Your task to perform on an android device: Open display settings Image 0: 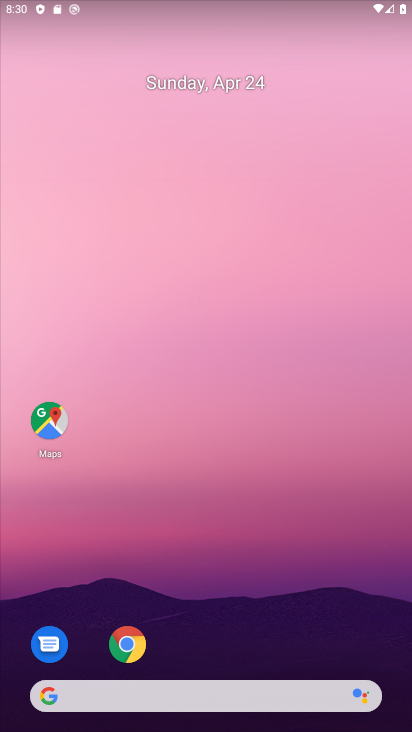
Step 0: click (372, 43)
Your task to perform on an android device: Open display settings Image 1: 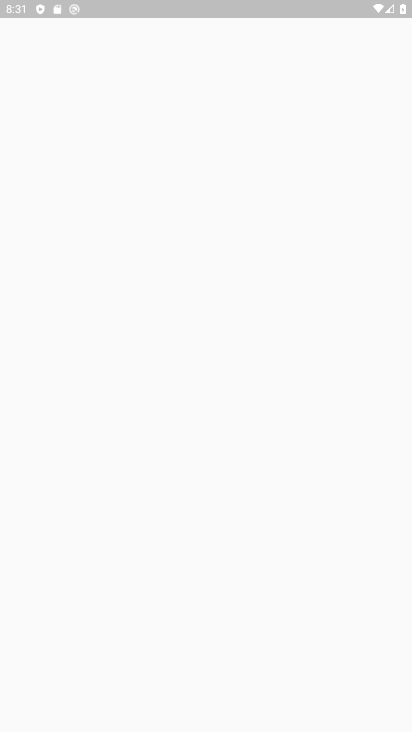
Step 1: press home button
Your task to perform on an android device: Open display settings Image 2: 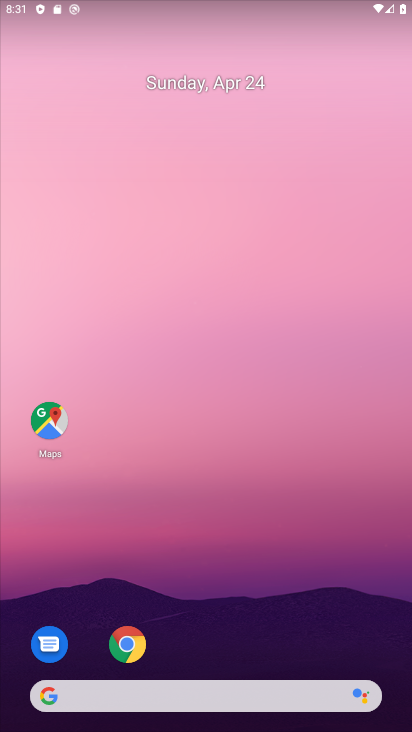
Step 2: drag from (221, 653) to (398, 12)
Your task to perform on an android device: Open display settings Image 3: 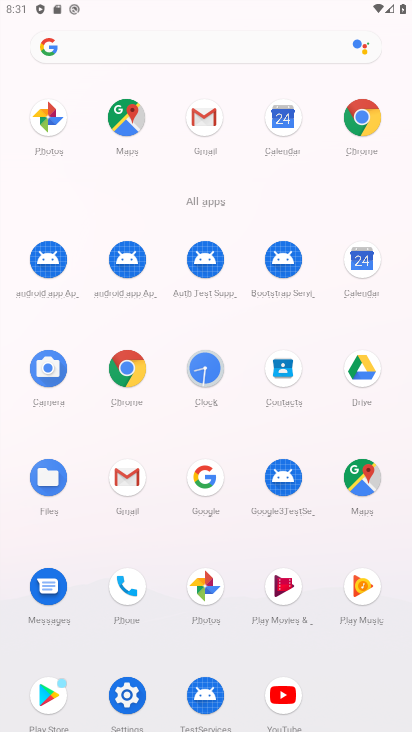
Step 3: drag from (189, 625) to (249, 360)
Your task to perform on an android device: Open display settings Image 4: 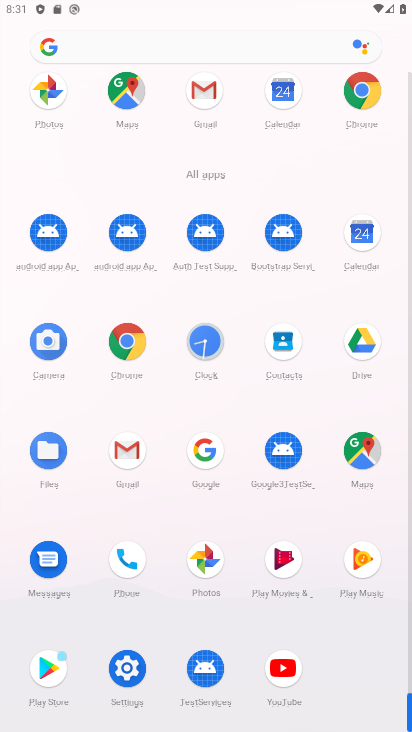
Step 4: click (116, 661)
Your task to perform on an android device: Open display settings Image 5: 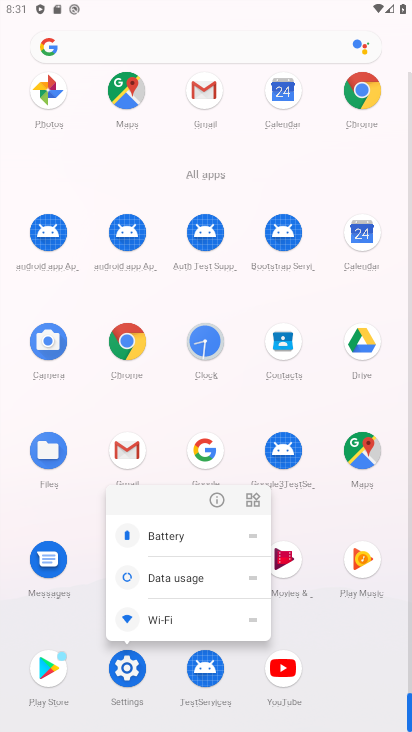
Step 5: click (128, 666)
Your task to perform on an android device: Open display settings Image 6: 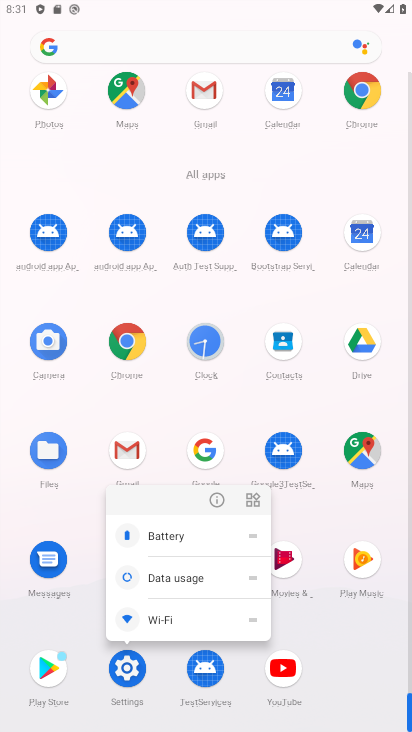
Step 6: click (131, 675)
Your task to perform on an android device: Open display settings Image 7: 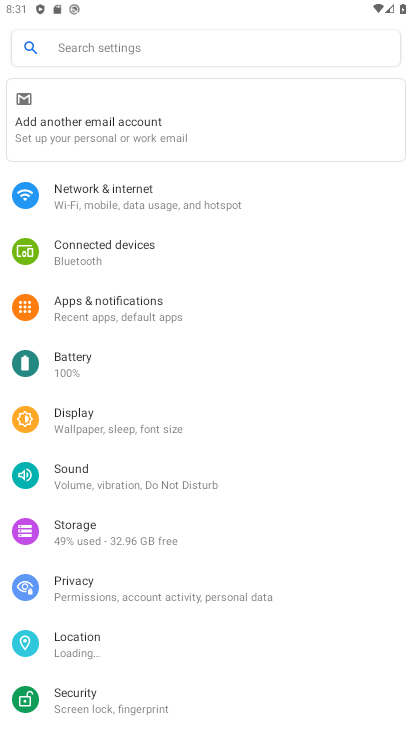
Step 7: click (107, 423)
Your task to perform on an android device: Open display settings Image 8: 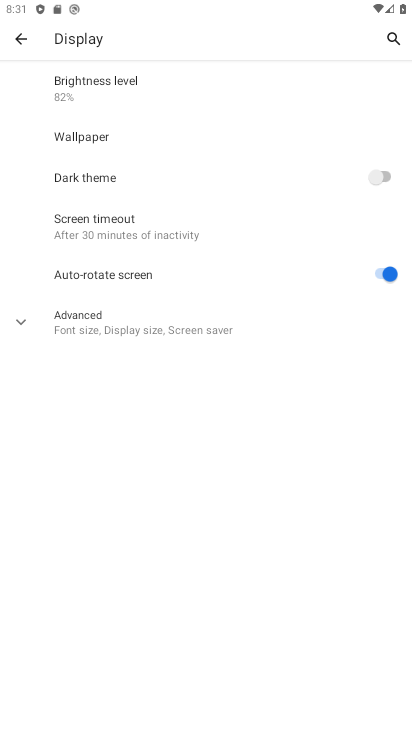
Step 8: task complete